Your task to perform on an android device: delete browsing data in the chrome app Image 0: 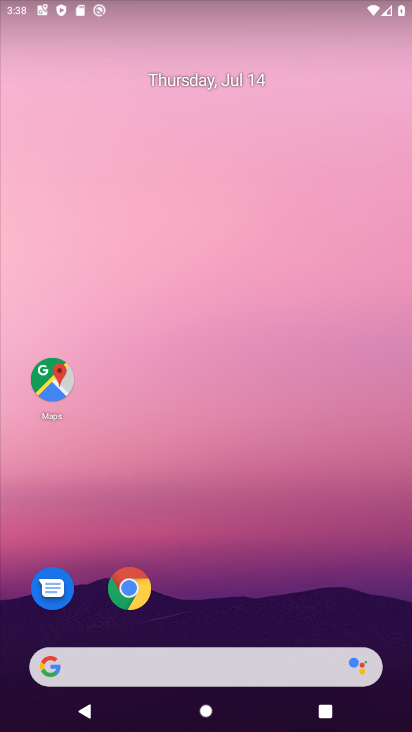
Step 0: drag from (356, 587) to (387, 87)
Your task to perform on an android device: delete browsing data in the chrome app Image 1: 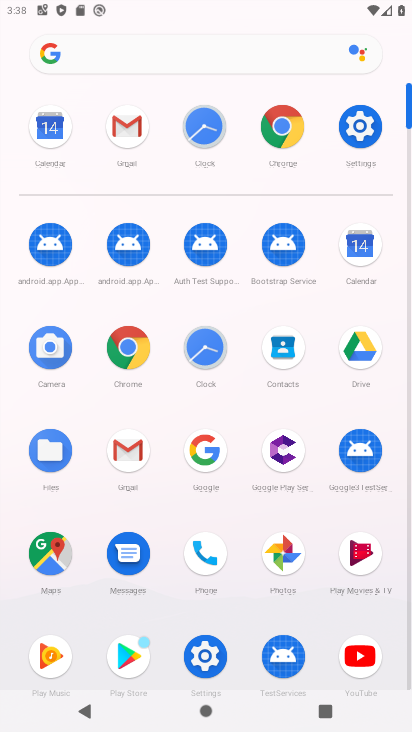
Step 1: click (294, 124)
Your task to perform on an android device: delete browsing data in the chrome app Image 2: 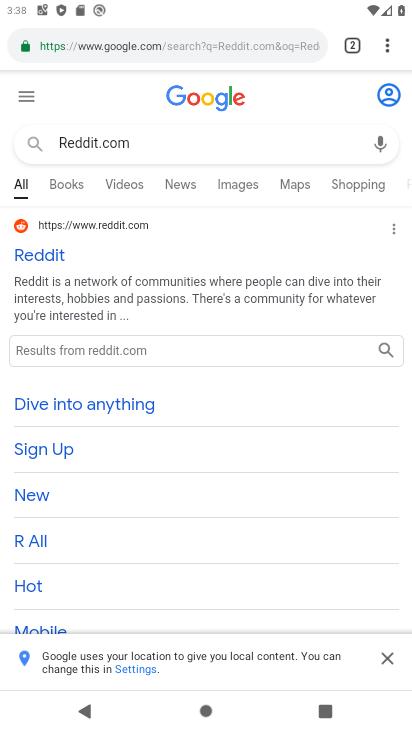
Step 2: drag from (378, 36) to (213, 255)
Your task to perform on an android device: delete browsing data in the chrome app Image 3: 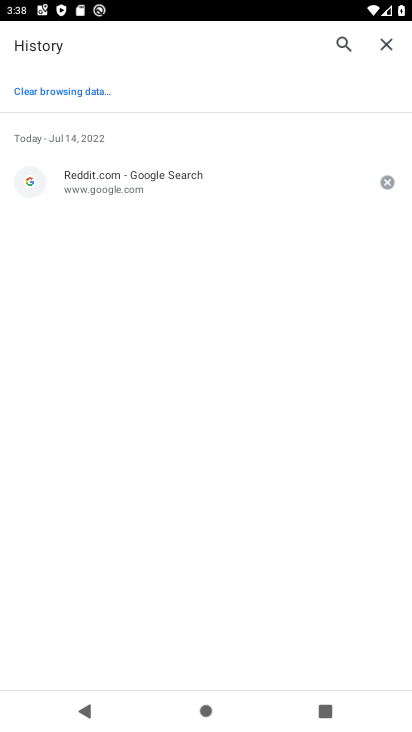
Step 3: click (72, 86)
Your task to perform on an android device: delete browsing data in the chrome app Image 4: 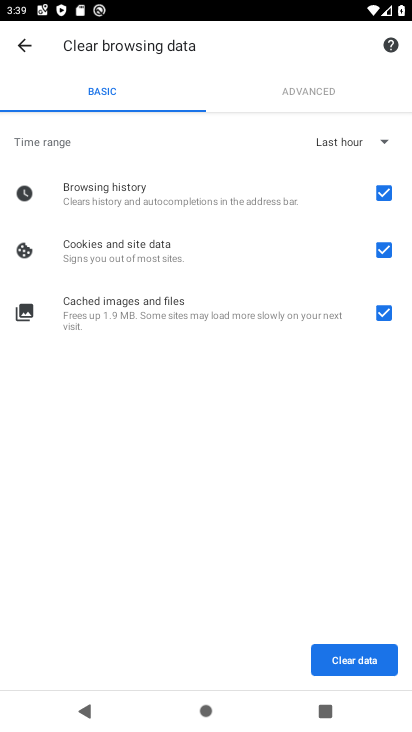
Step 4: click (370, 656)
Your task to perform on an android device: delete browsing data in the chrome app Image 5: 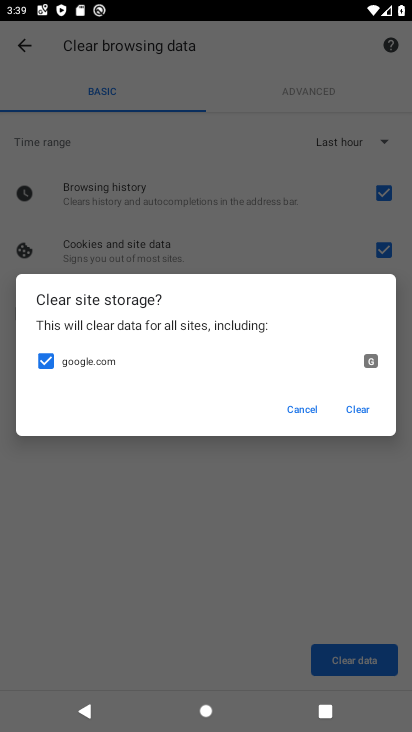
Step 5: click (362, 414)
Your task to perform on an android device: delete browsing data in the chrome app Image 6: 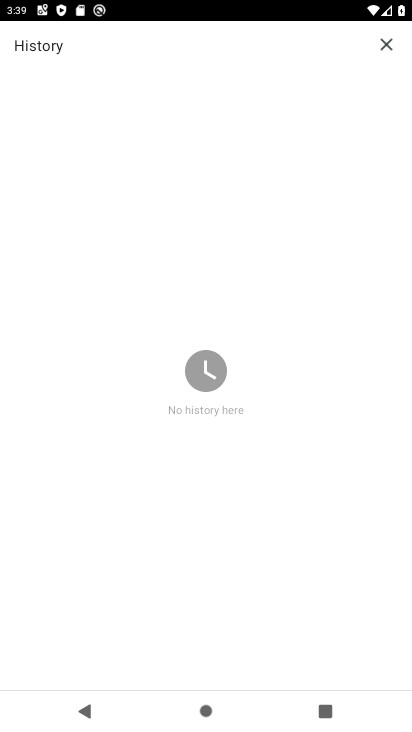
Step 6: task complete